Your task to perform on an android device: visit the assistant section in the google photos Image 0: 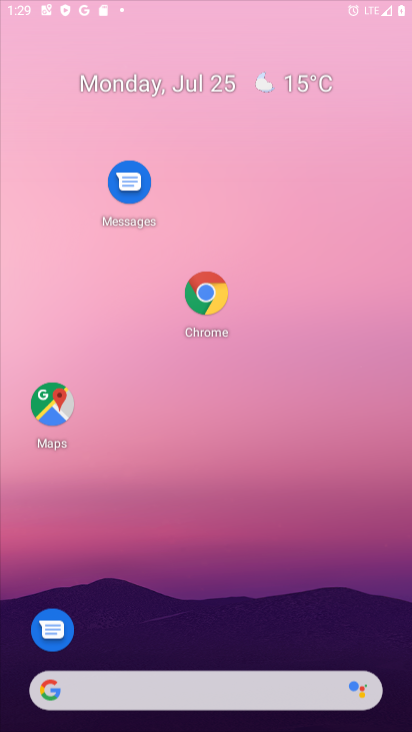
Step 0: press home button
Your task to perform on an android device: visit the assistant section in the google photos Image 1: 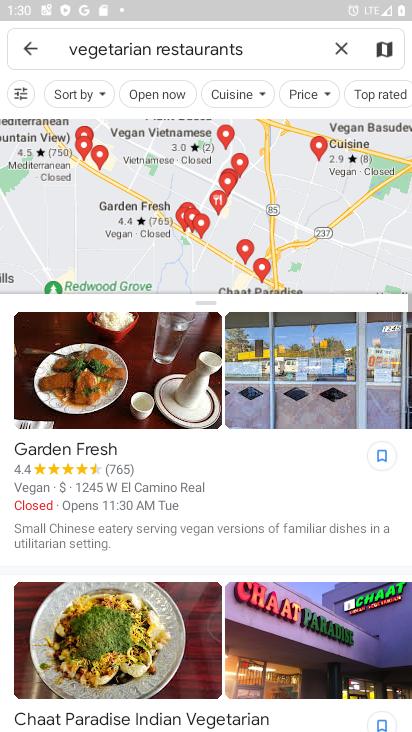
Step 1: click (244, 78)
Your task to perform on an android device: visit the assistant section in the google photos Image 2: 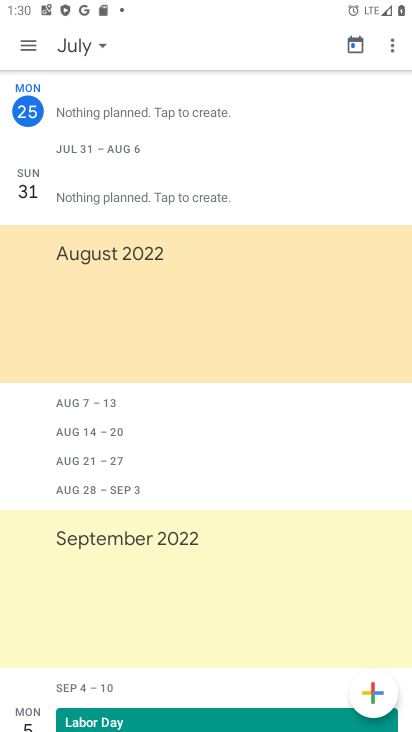
Step 2: press home button
Your task to perform on an android device: visit the assistant section in the google photos Image 3: 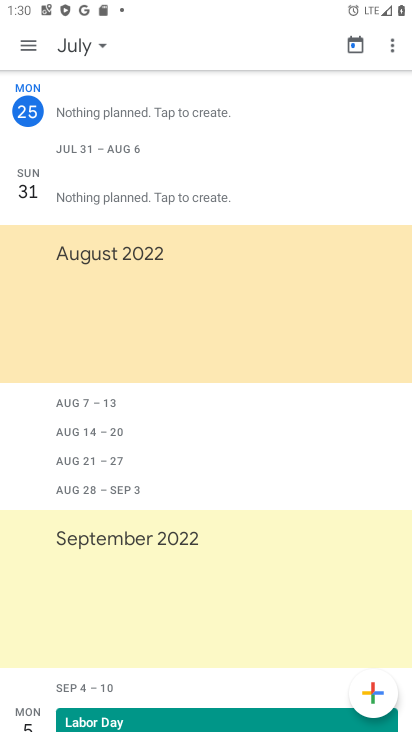
Step 3: drag from (245, 725) to (266, 203)
Your task to perform on an android device: visit the assistant section in the google photos Image 4: 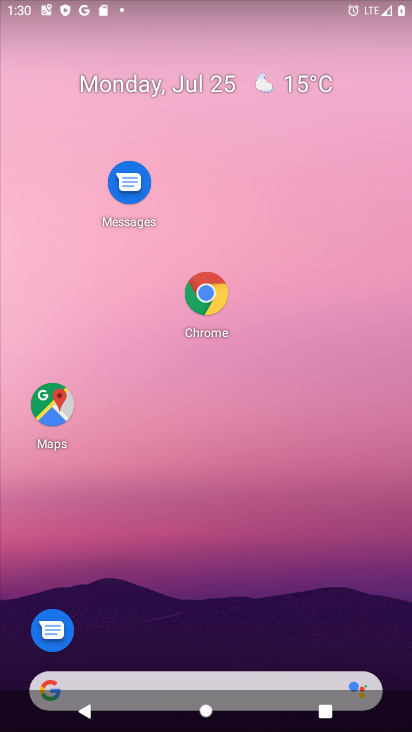
Step 4: drag from (184, 606) to (221, 76)
Your task to perform on an android device: visit the assistant section in the google photos Image 5: 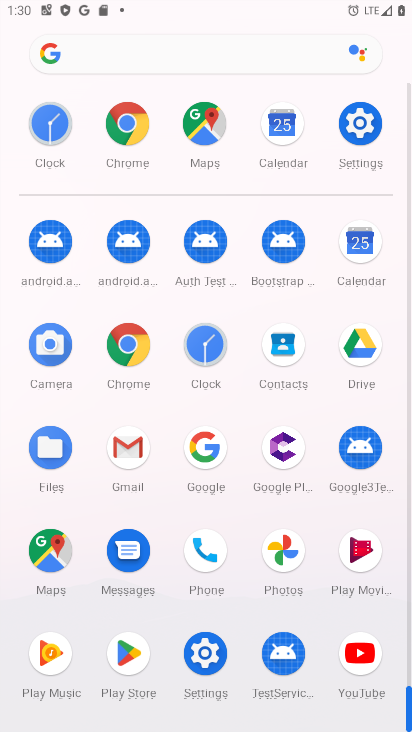
Step 5: click (303, 560)
Your task to perform on an android device: visit the assistant section in the google photos Image 6: 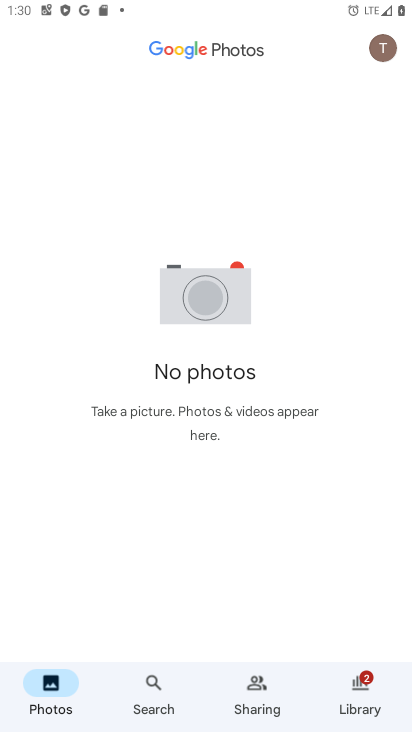
Step 6: task complete